Your task to perform on an android device: Is it going to rain this weekend? Image 0: 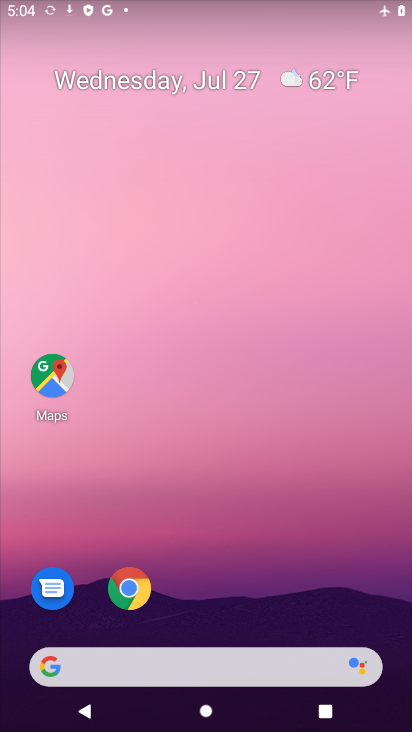
Step 0: click (170, 57)
Your task to perform on an android device: Is it going to rain this weekend? Image 1: 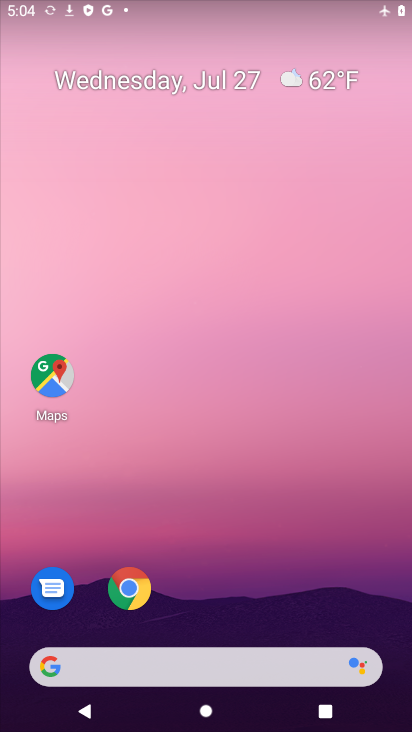
Step 1: drag from (194, 548) to (176, 29)
Your task to perform on an android device: Is it going to rain this weekend? Image 2: 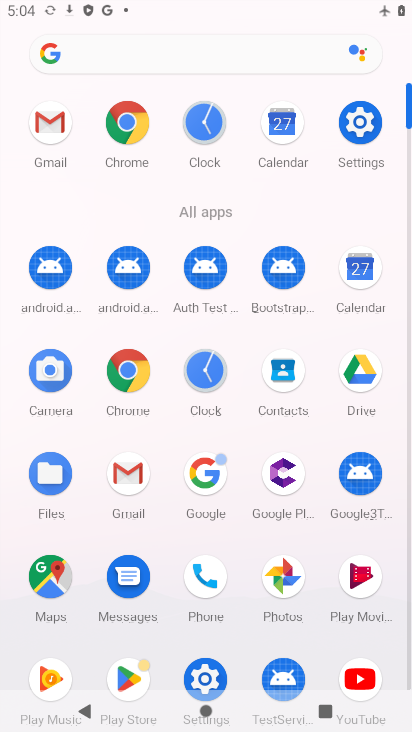
Step 2: click (278, 142)
Your task to perform on an android device: Is it going to rain this weekend? Image 3: 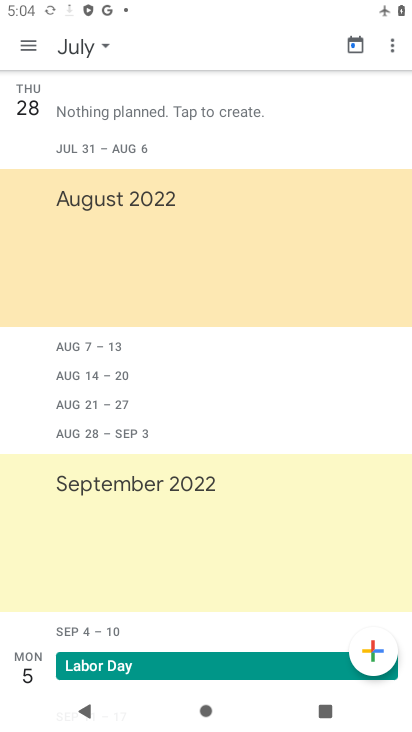
Step 3: click (26, 47)
Your task to perform on an android device: Is it going to rain this weekend? Image 4: 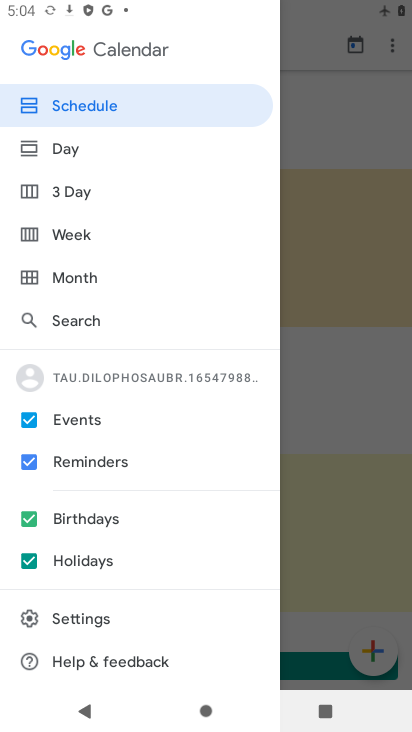
Step 4: click (60, 232)
Your task to perform on an android device: Is it going to rain this weekend? Image 5: 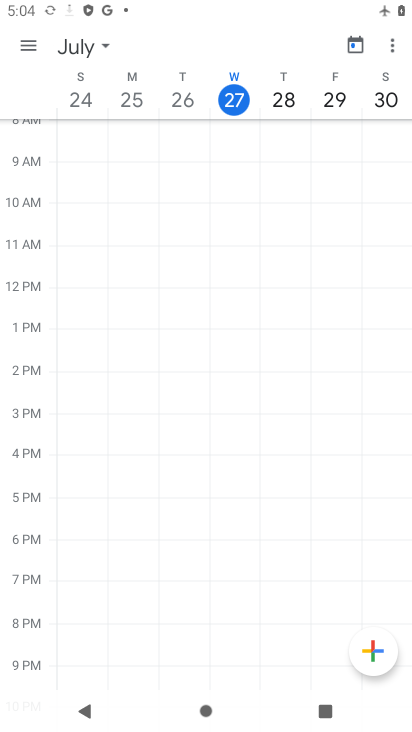
Step 5: task complete